Your task to perform on an android device: Find the nearest electronics store that's open today Image 0: 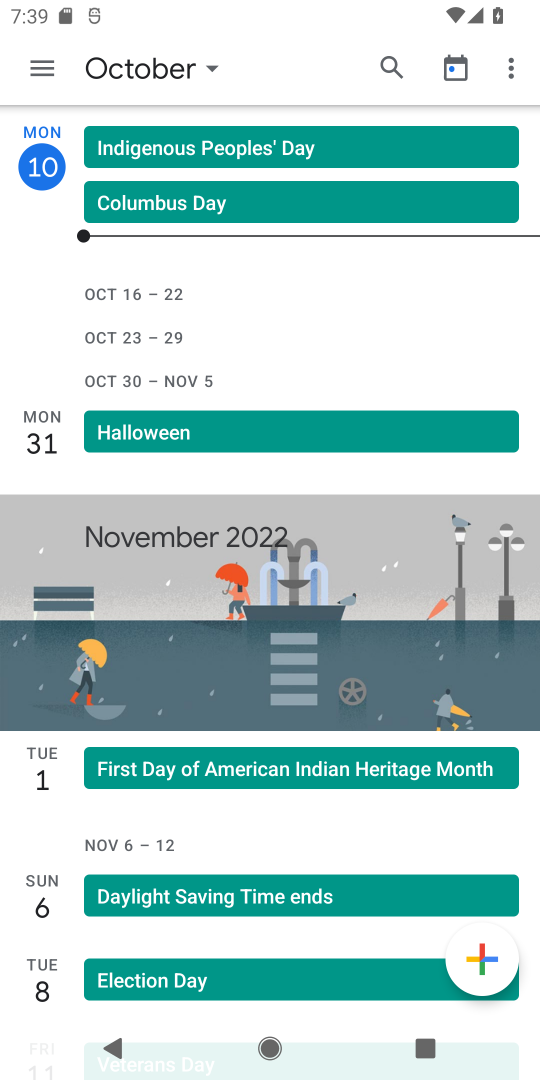
Step 0: press home button
Your task to perform on an android device: Find the nearest electronics store that's open today Image 1: 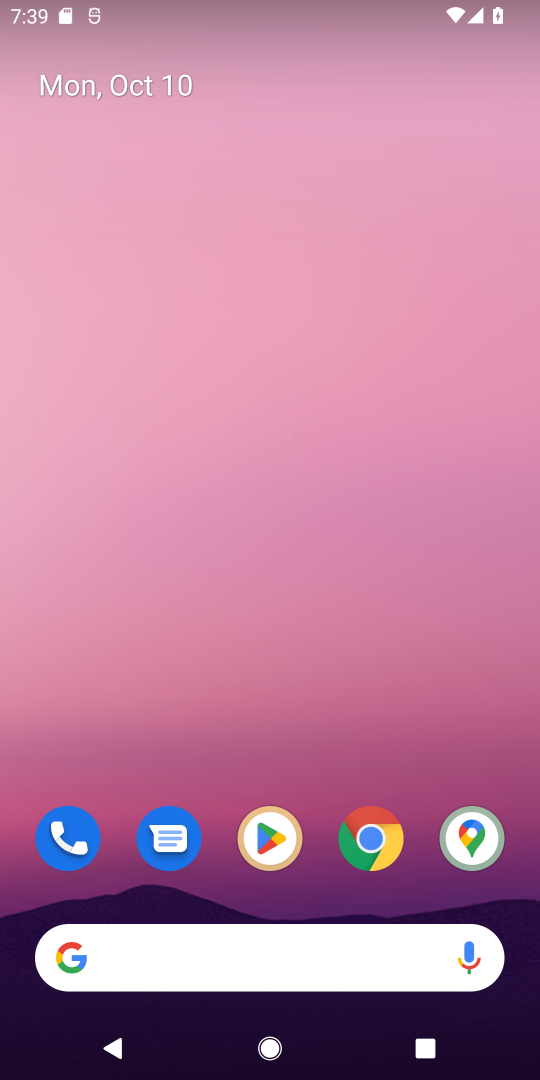
Step 1: click (374, 842)
Your task to perform on an android device: Find the nearest electronics store that's open today Image 2: 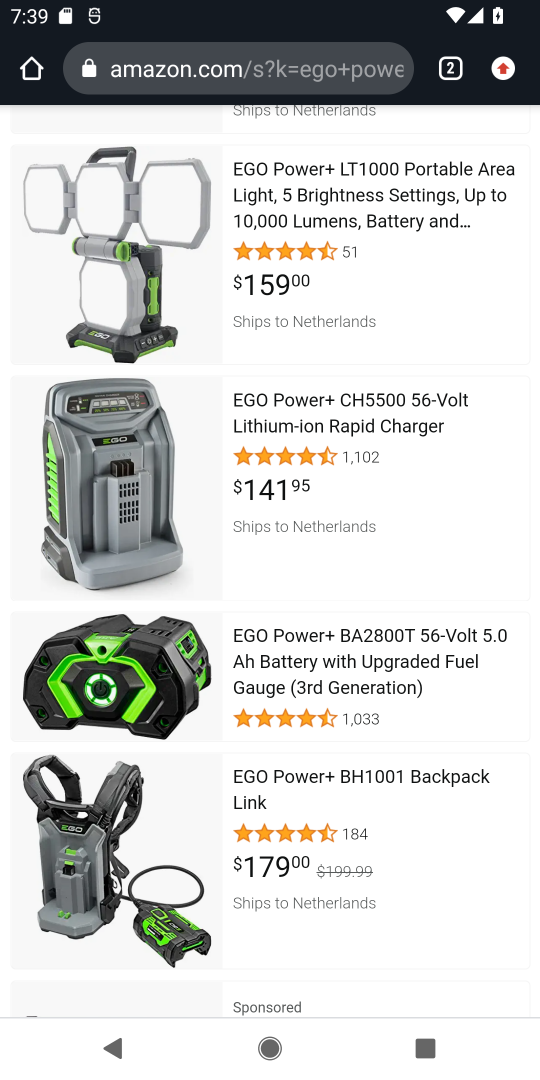
Step 2: click (243, 53)
Your task to perform on an android device: Find the nearest electronics store that's open today Image 3: 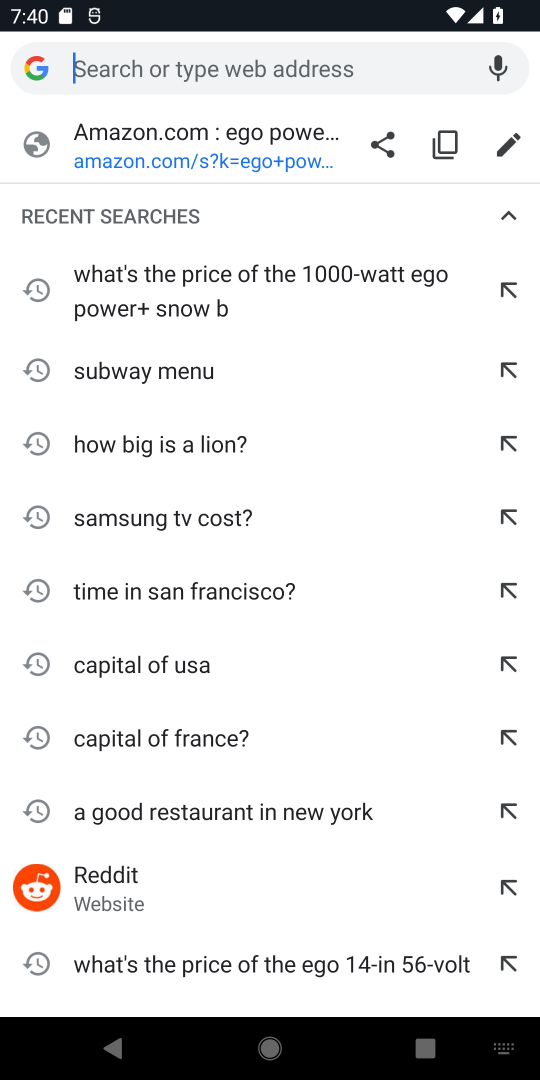
Step 3: type "nearest electronics store that's open today"
Your task to perform on an android device: Find the nearest electronics store that's open today Image 4: 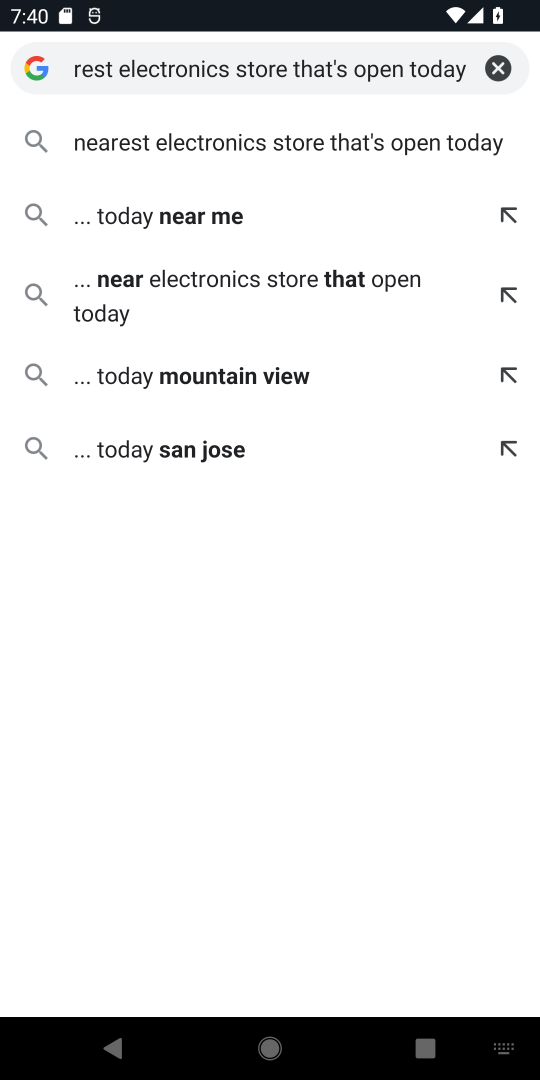
Step 4: click (192, 135)
Your task to perform on an android device: Find the nearest electronics store that's open today Image 5: 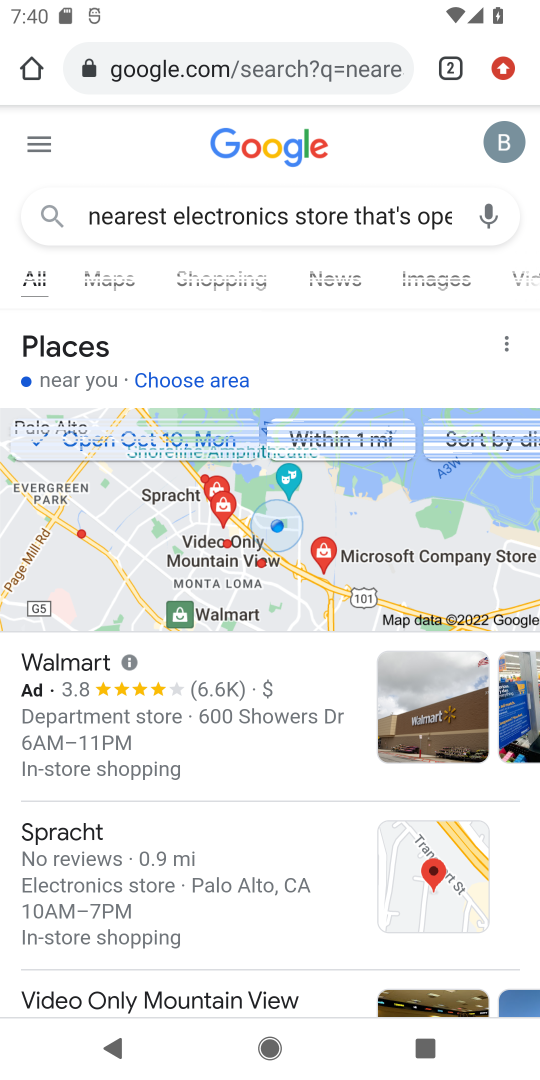
Step 5: drag from (211, 801) to (237, 160)
Your task to perform on an android device: Find the nearest electronics store that's open today Image 6: 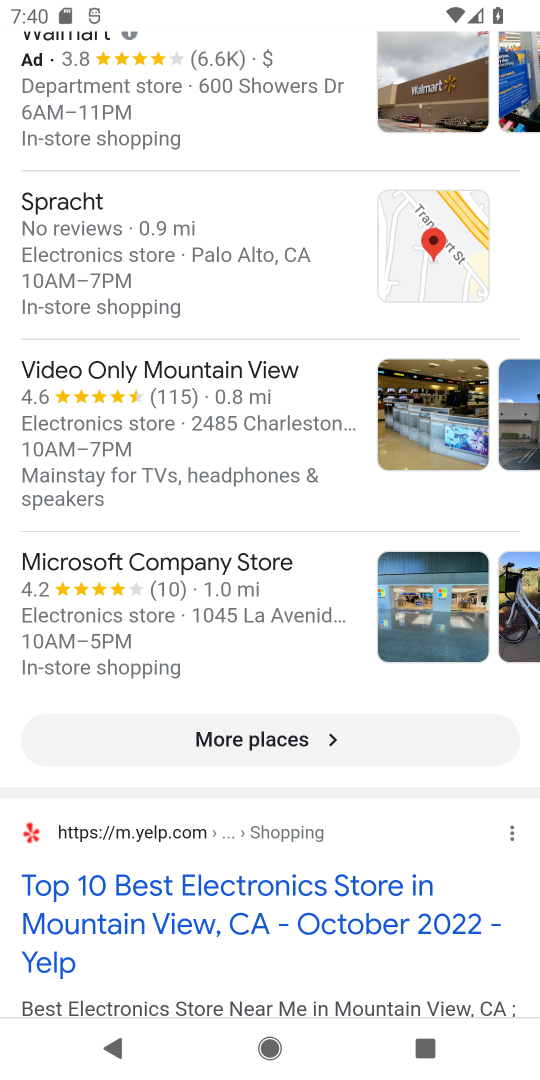
Step 6: click (213, 805)
Your task to perform on an android device: Find the nearest electronics store that's open today Image 7: 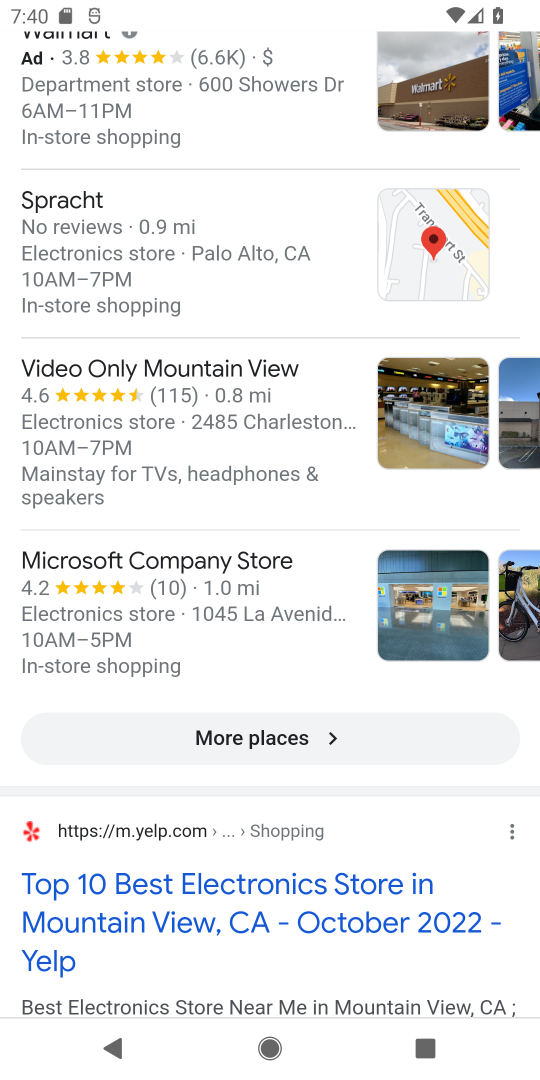
Step 7: drag from (243, 466) to (221, 847)
Your task to perform on an android device: Find the nearest electronics store that's open today Image 8: 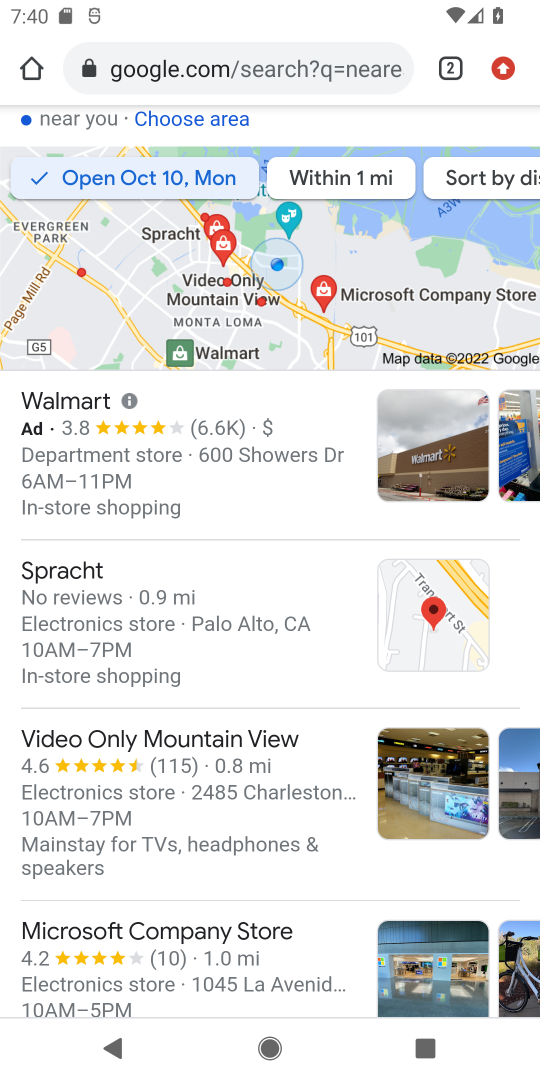
Step 8: drag from (293, 682) to (280, 369)
Your task to perform on an android device: Find the nearest electronics store that's open today Image 9: 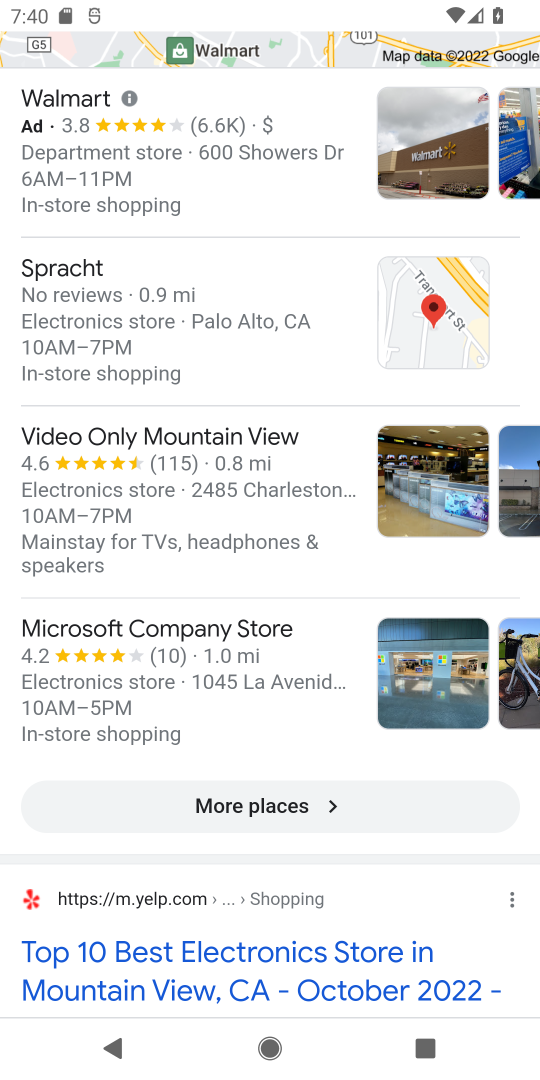
Step 9: drag from (168, 916) to (188, 699)
Your task to perform on an android device: Find the nearest electronics store that's open today Image 10: 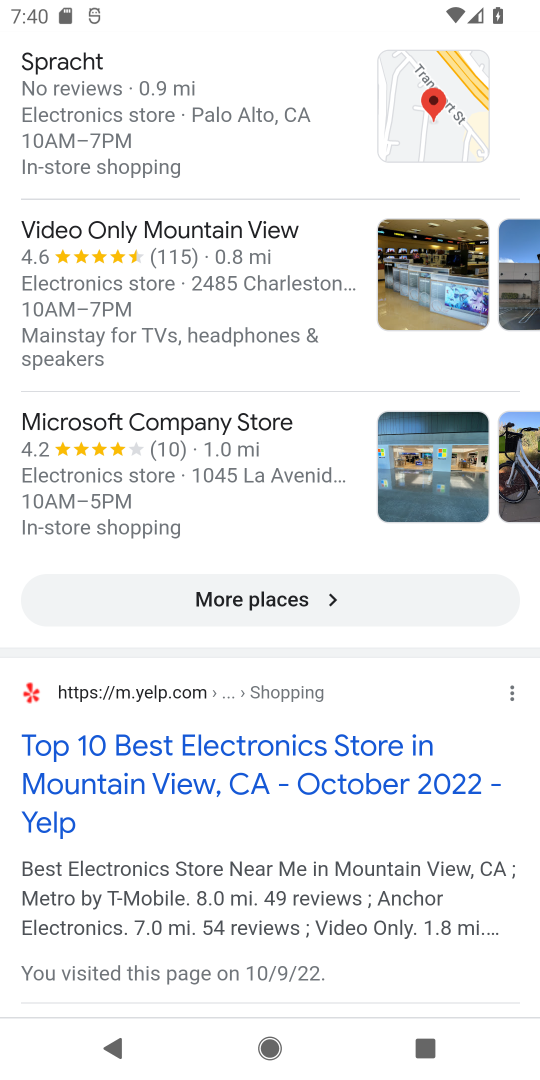
Step 10: click (87, 411)
Your task to perform on an android device: Find the nearest electronics store that's open today Image 11: 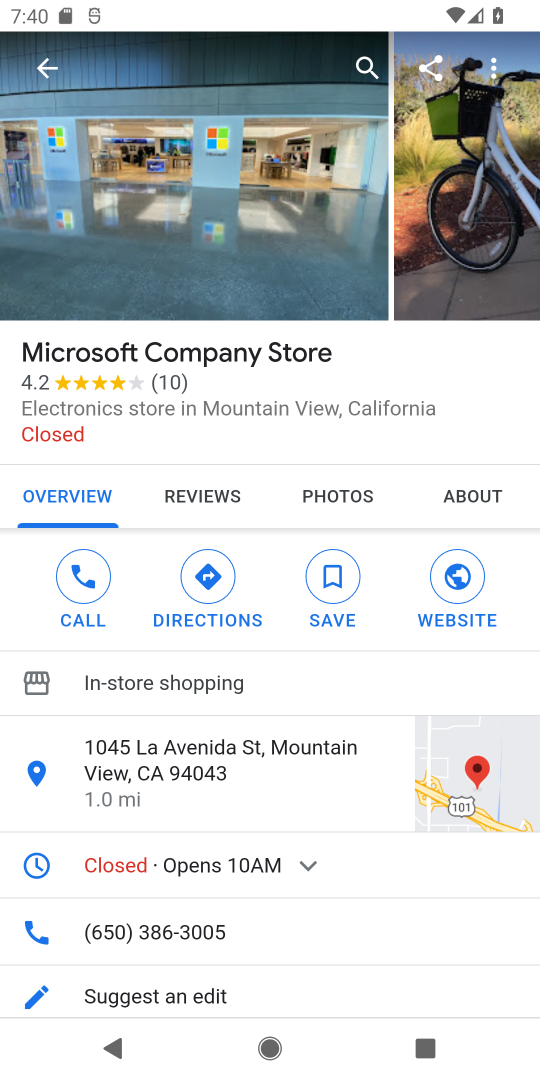
Step 11: task complete